Your task to perform on an android device: Open Google Maps Image 0: 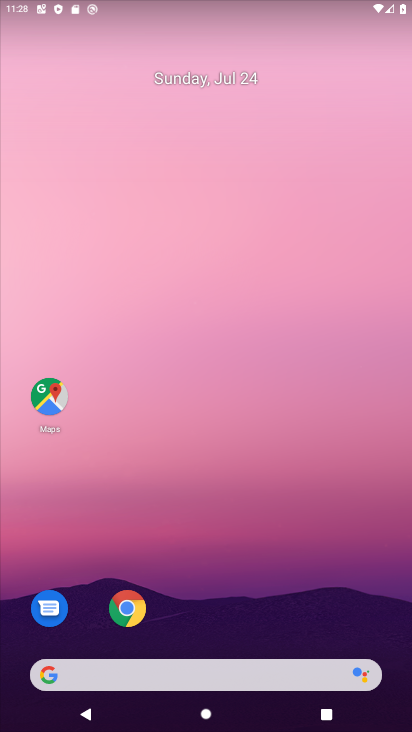
Step 0: click (41, 394)
Your task to perform on an android device: Open Google Maps Image 1: 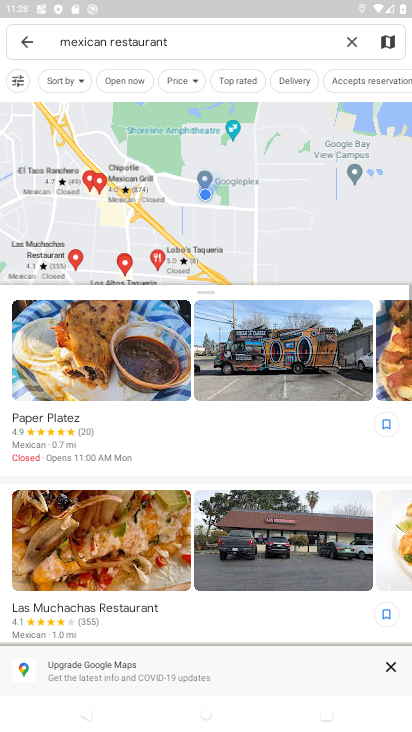
Step 1: task complete